Your task to perform on an android device: turn on location history Image 0: 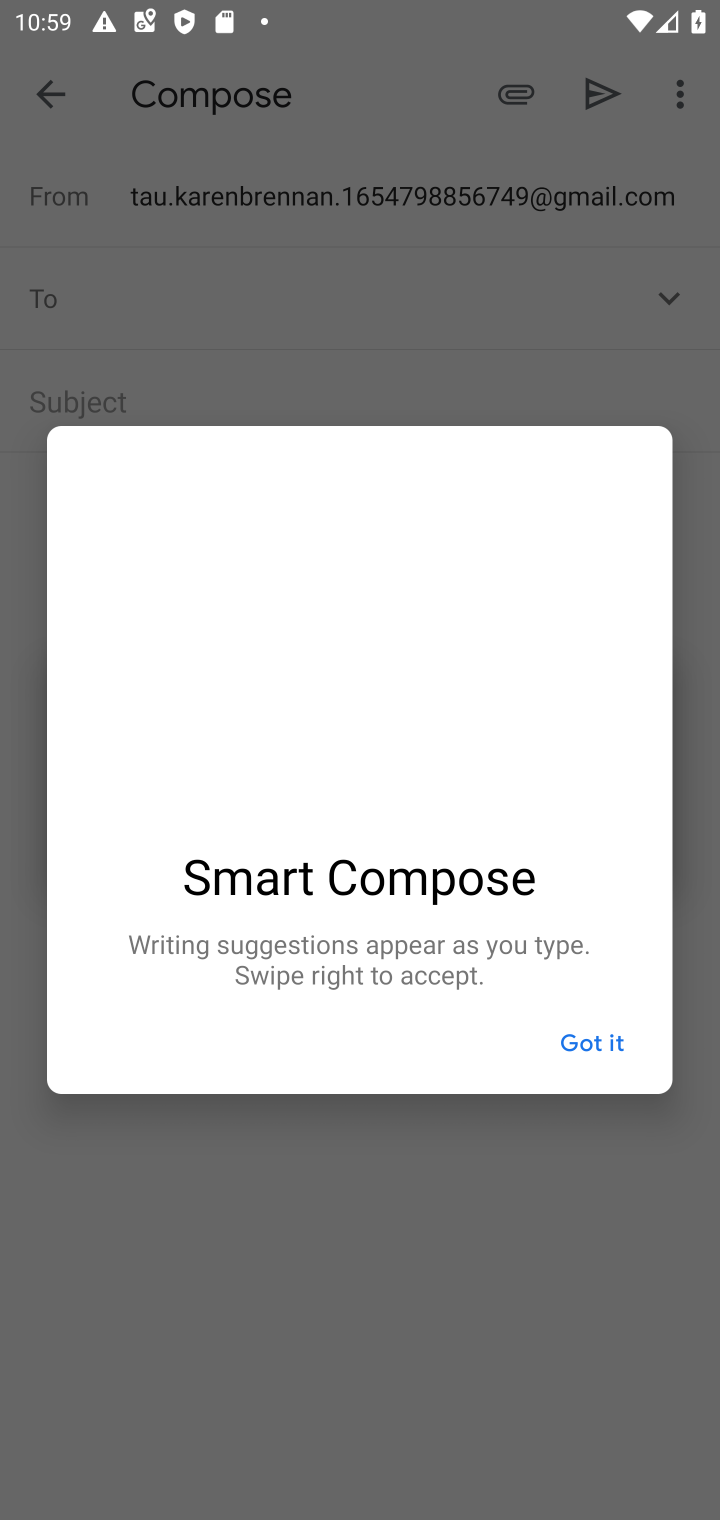
Step 0: press home button
Your task to perform on an android device: turn on location history Image 1: 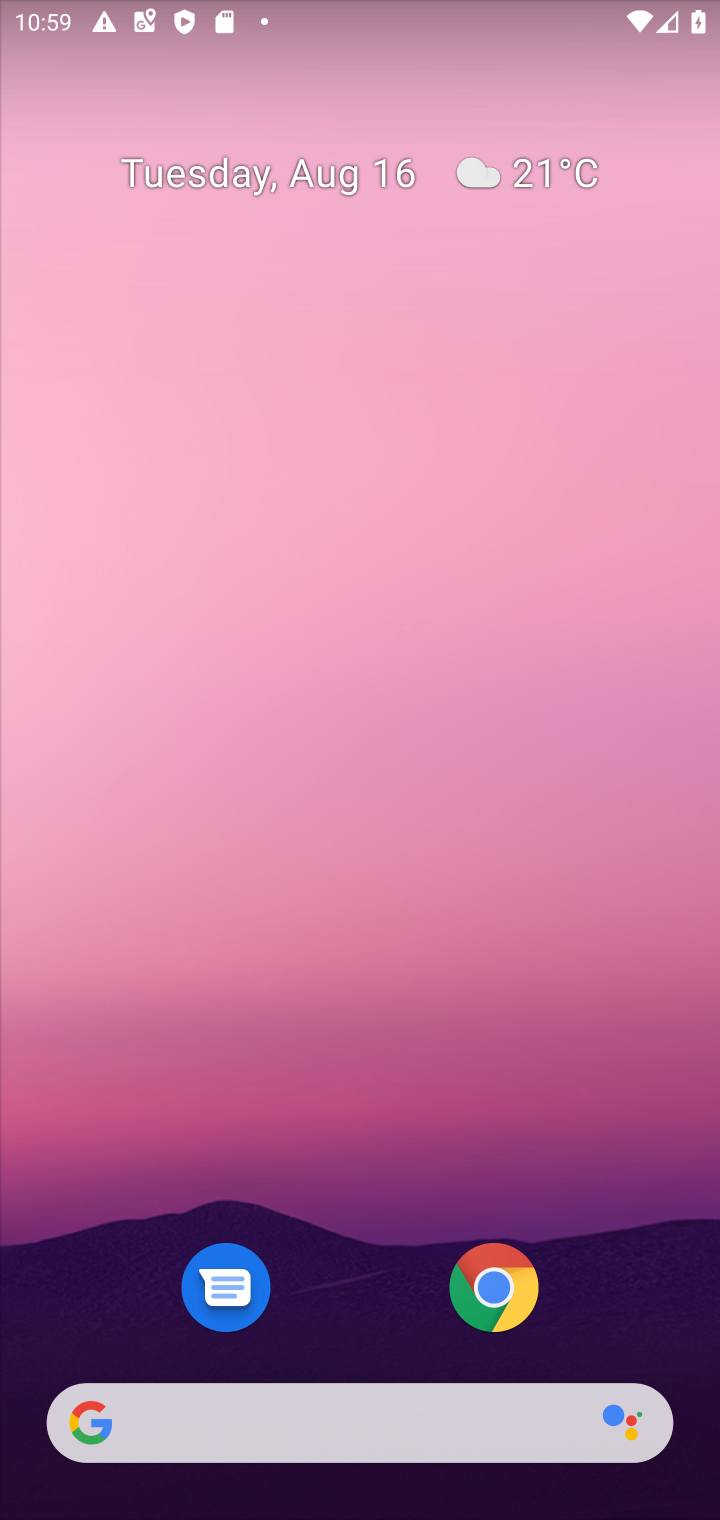
Step 1: drag from (662, 1328) to (620, 210)
Your task to perform on an android device: turn on location history Image 2: 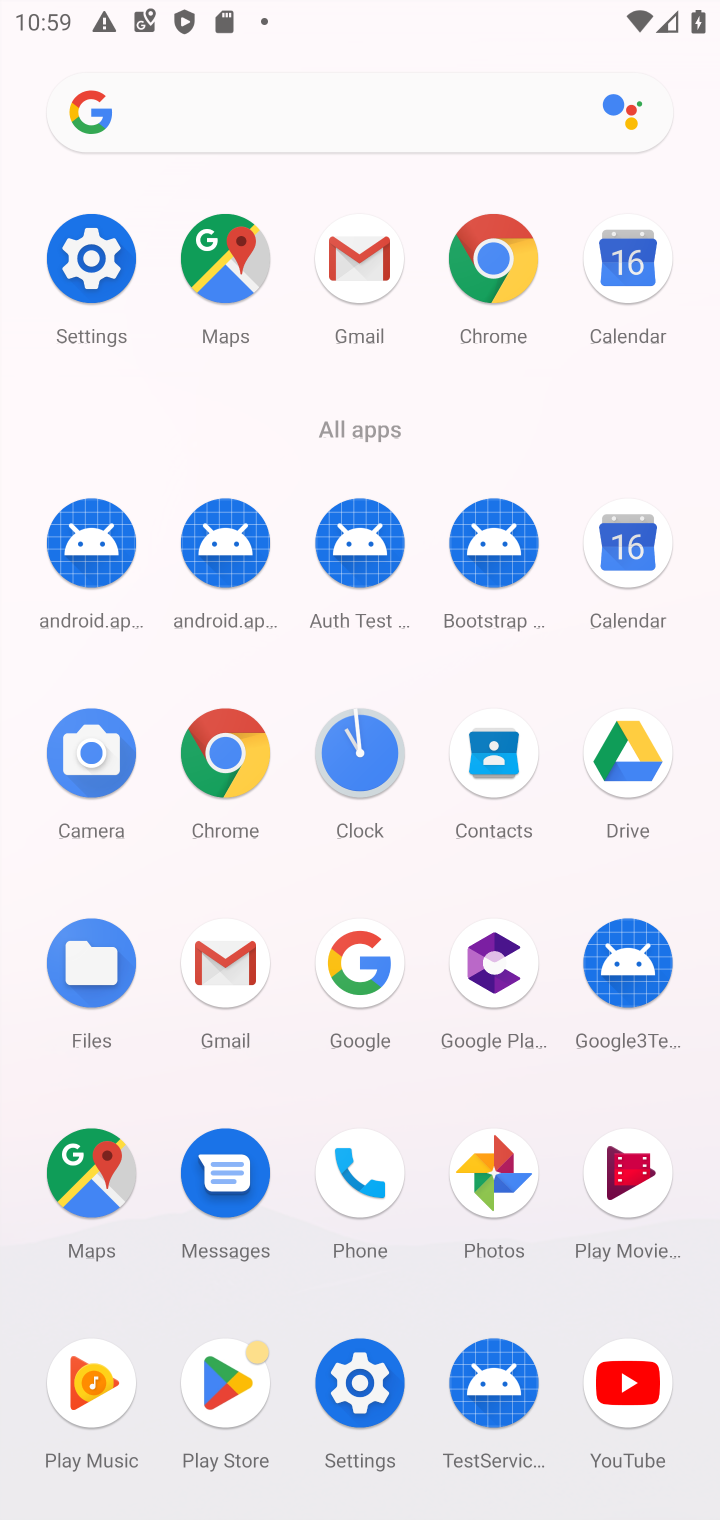
Step 2: click (88, 1177)
Your task to perform on an android device: turn on location history Image 3: 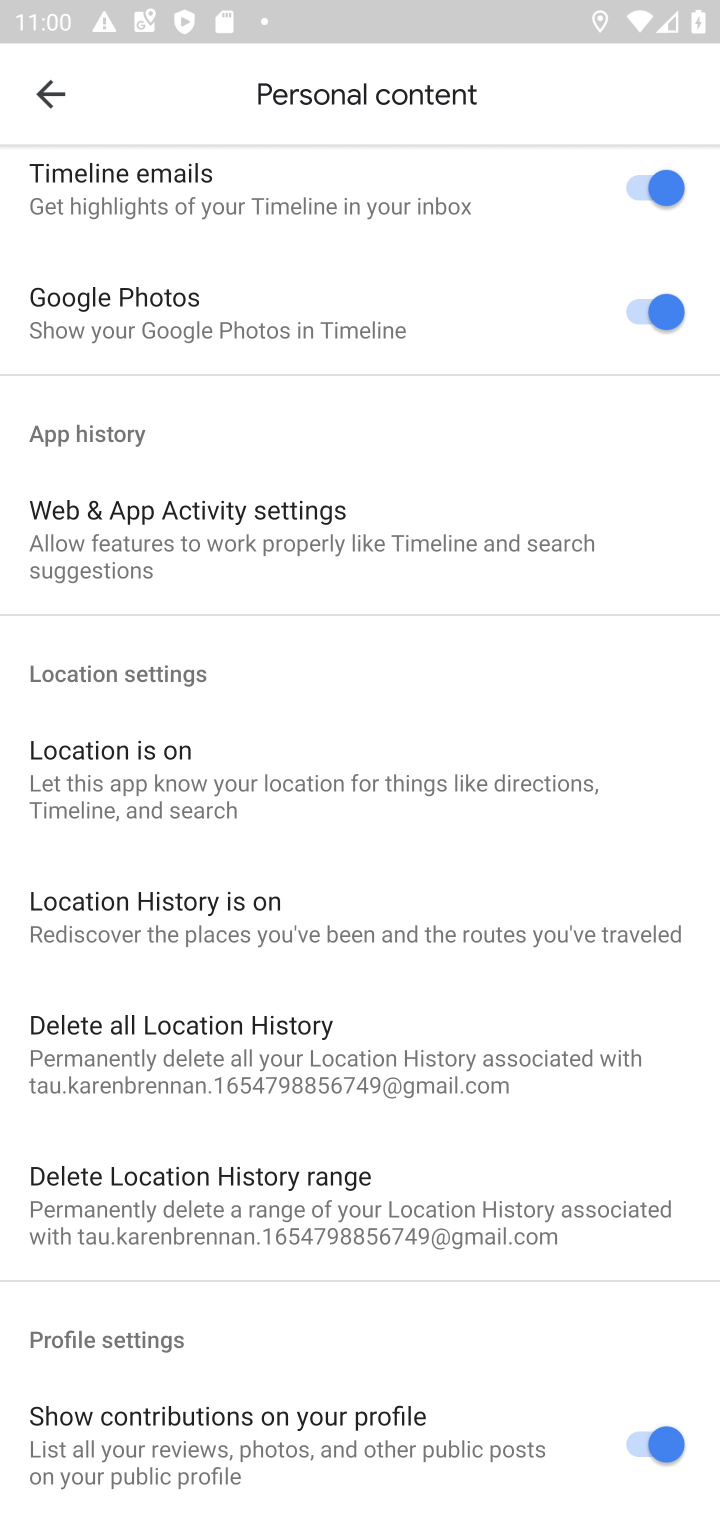
Step 3: task complete